Your task to perform on an android device: What is the recent news? Image 0: 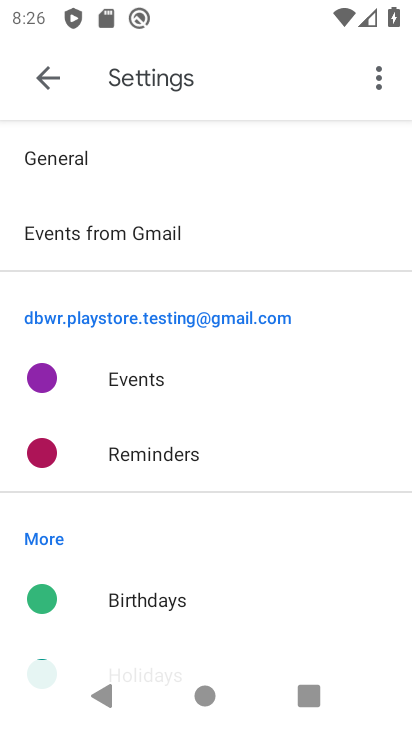
Step 0: press home button
Your task to perform on an android device: What is the recent news? Image 1: 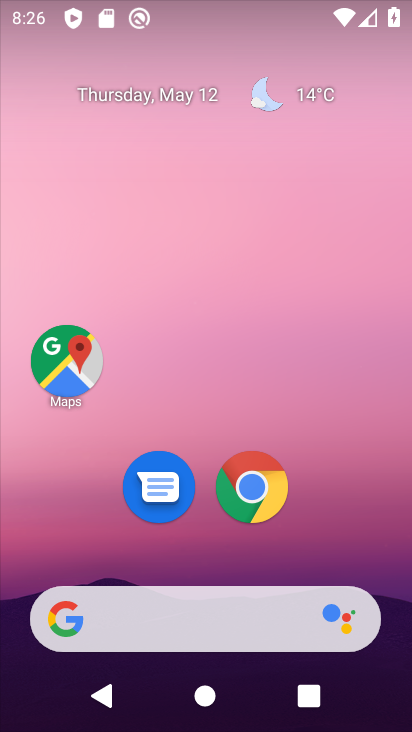
Step 1: click (153, 618)
Your task to perform on an android device: What is the recent news? Image 2: 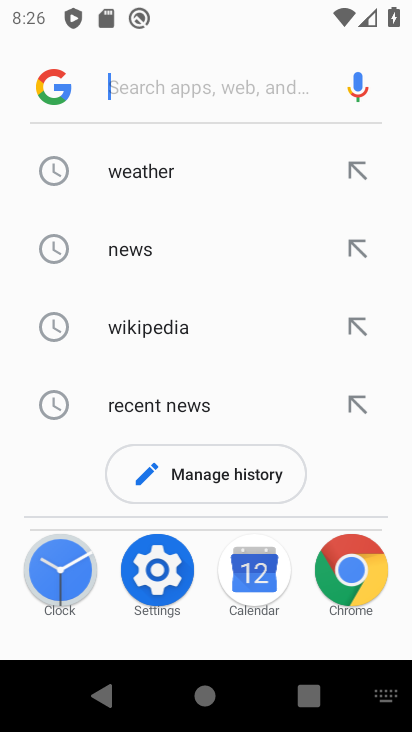
Step 2: click (123, 248)
Your task to perform on an android device: What is the recent news? Image 3: 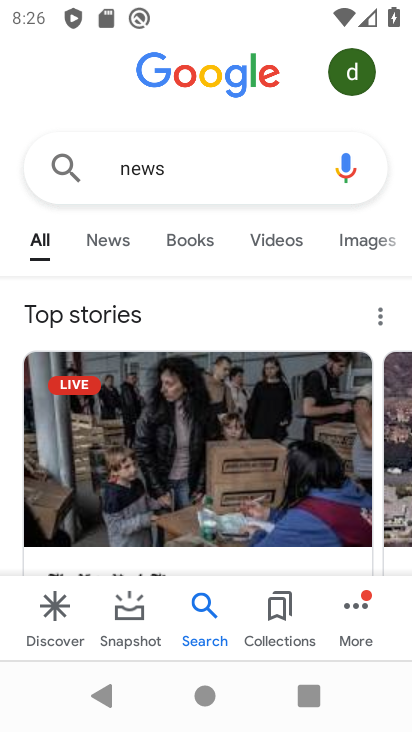
Step 3: task complete